Your task to perform on an android device: turn off priority inbox in the gmail app Image 0: 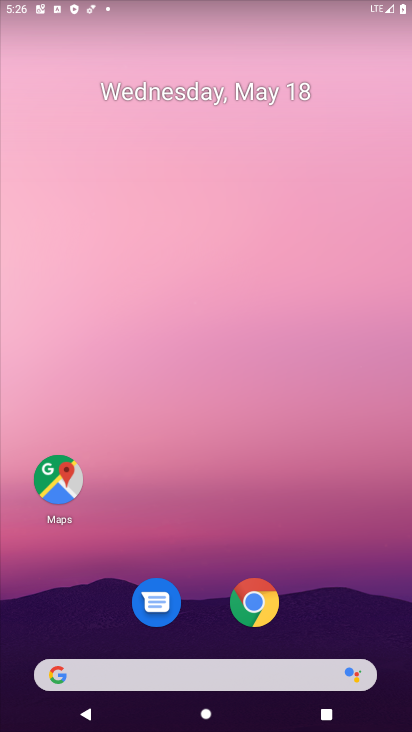
Step 0: drag from (303, 656) to (290, 2)
Your task to perform on an android device: turn off priority inbox in the gmail app Image 1: 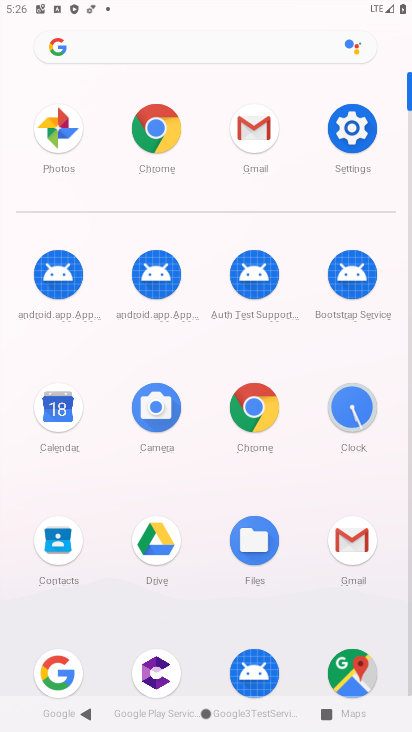
Step 1: click (355, 531)
Your task to perform on an android device: turn off priority inbox in the gmail app Image 2: 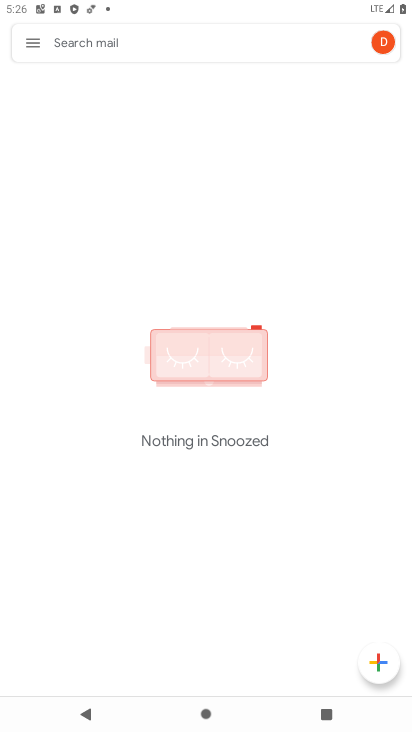
Step 2: click (29, 40)
Your task to perform on an android device: turn off priority inbox in the gmail app Image 3: 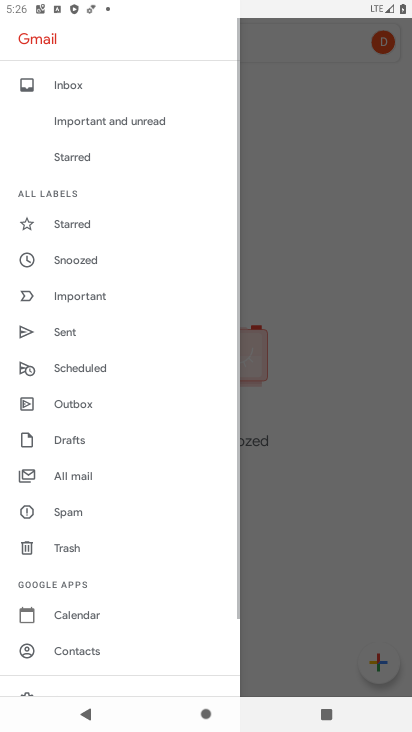
Step 3: drag from (83, 647) to (135, 215)
Your task to perform on an android device: turn off priority inbox in the gmail app Image 4: 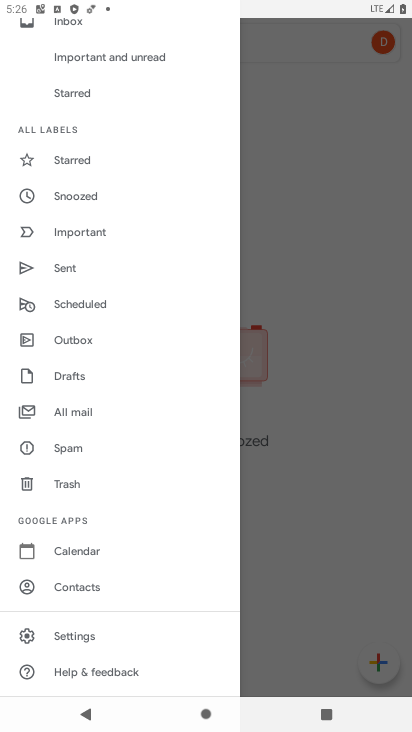
Step 4: click (77, 631)
Your task to perform on an android device: turn off priority inbox in the gmail app Image 5: 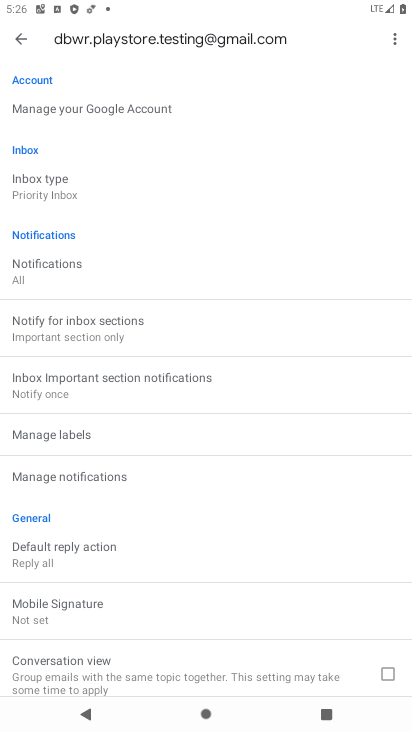
Step 5: click (54, 191)
Your task to perform on an android device: turn off priority inbox in the gmail app Image 6: 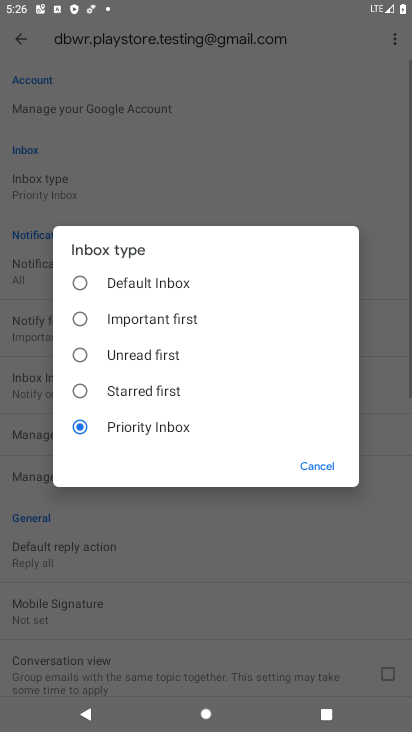
Step 6: click (78, 284)
Your task to perform on an android device: turn off priority inbox in the gmail app Image 7: 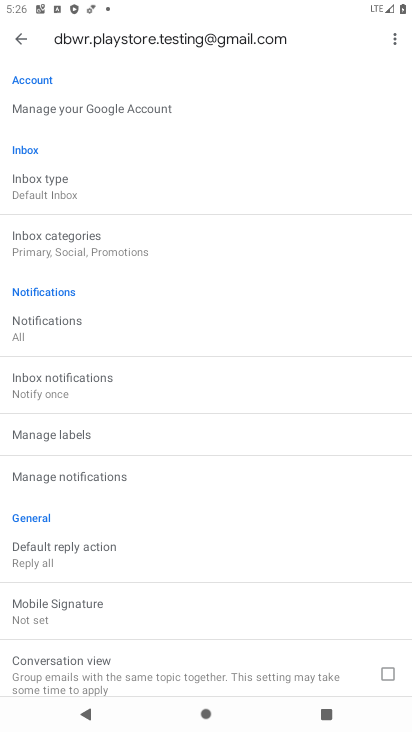
Step 7: task complete